Your task to perform on an android device: Search for sushi restaurants on Maps Image 0: 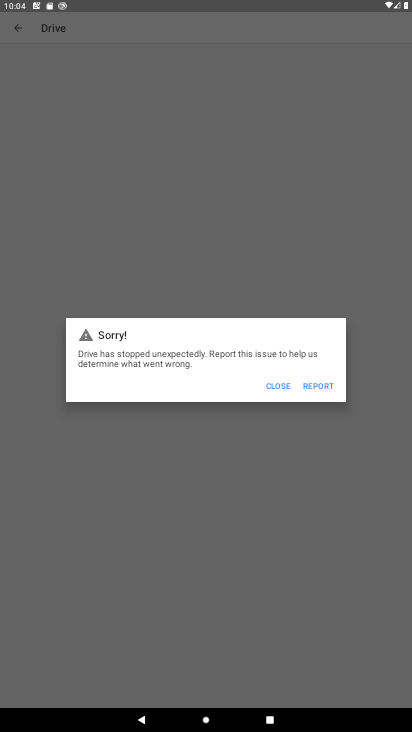
Step 0: press home button
Your task to perform on an android device: Search for sushi restaurants on Maps Image 1: 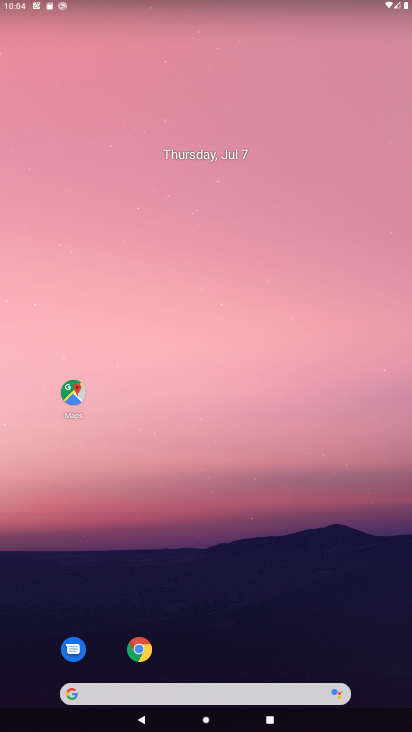
Step 1: click (70, 394)
Your task to perform on an android device: Search for sushi restaurants on Maps Image 2: 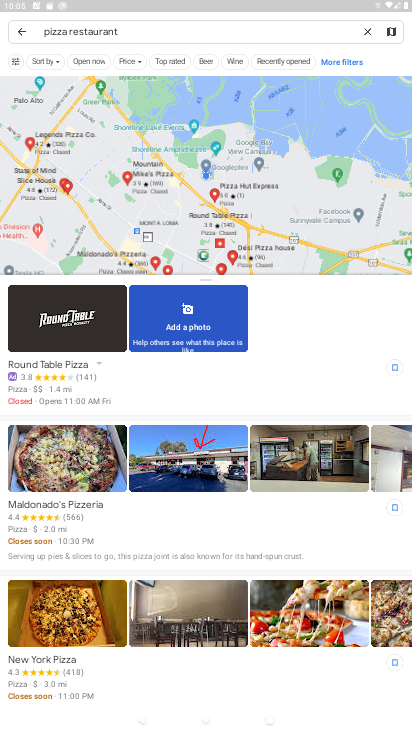
Step 2: click (368, 28)
Your task to perform on an android device: Search for sushi restaurants on Maps Image 3: 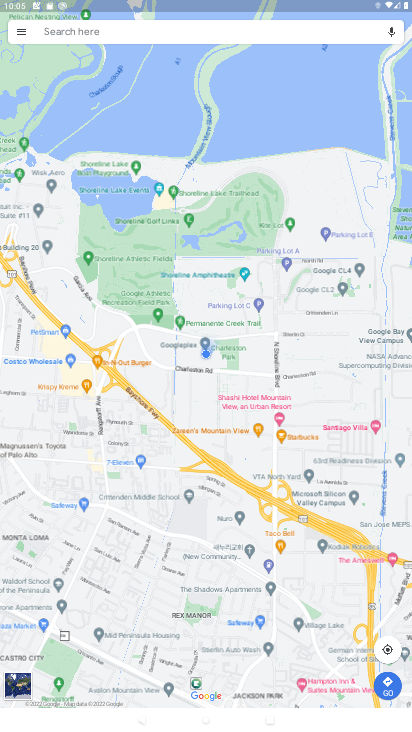
Step 3: click (263, 31)
Your task to perform on an android device: Search for sushi restaurants on Maps Image 4: 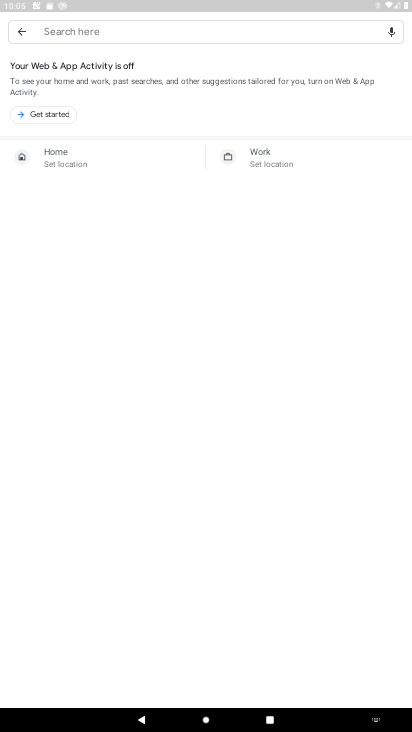
Step 4: type "sushi restaurants"
Your task to perform on an android device: Search for sushi restaurants on Maps Image 5: 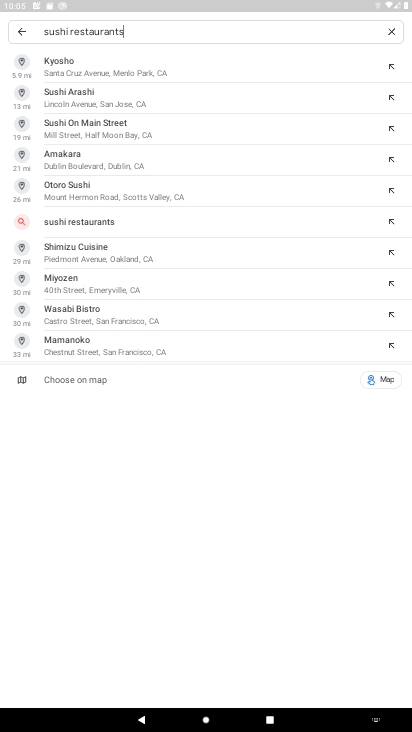
Step 5: click (105, 222)
Your task to perform on an android device: Search for sushi restaurants on Maps Image 6: 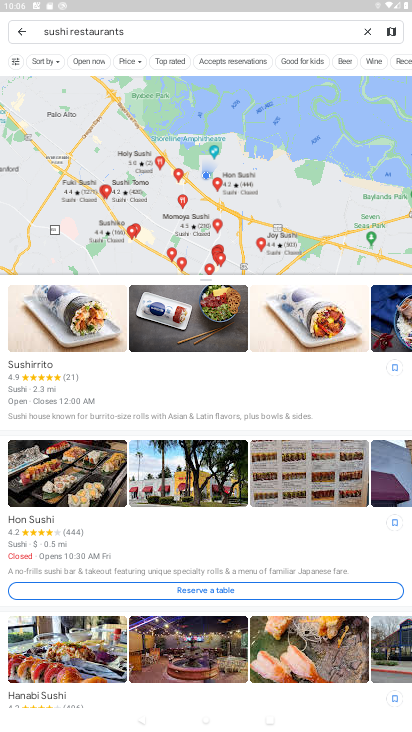
Step 6: task complete